Your task to perform on an android device: Go to internet settings Image 0: 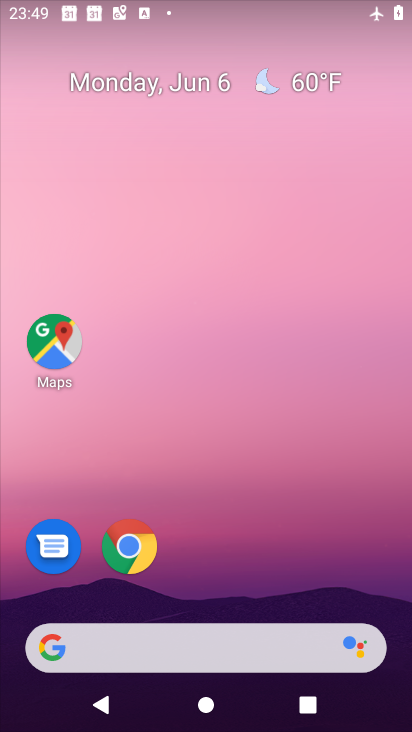
Step 0: drag from (393, 611) to (321, 100)
Your task to perform on an android device: Go to internet settings Image 1: 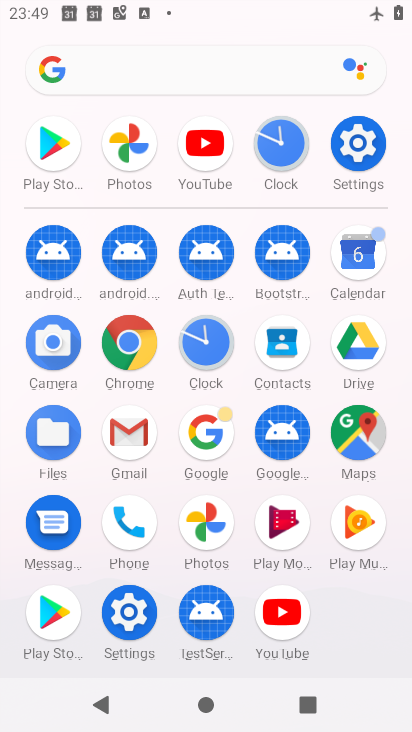
Step 1: click (129, 615)
Your task to perform on an android device: Go to internet settings Image 2: 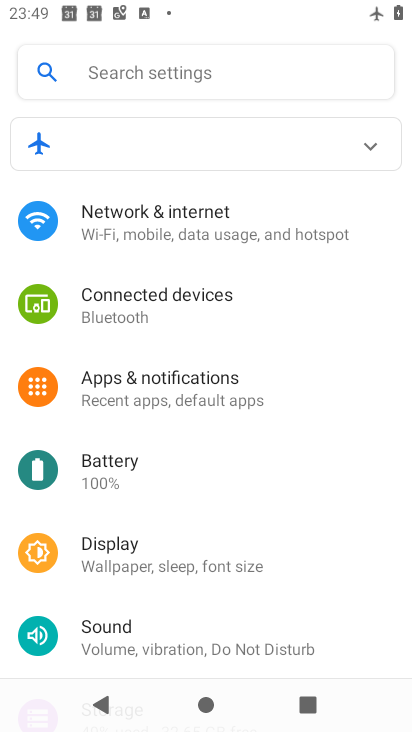
Step 2: click (143, 224)
Your task to perform on an android device: Go to internet settings Image 3: 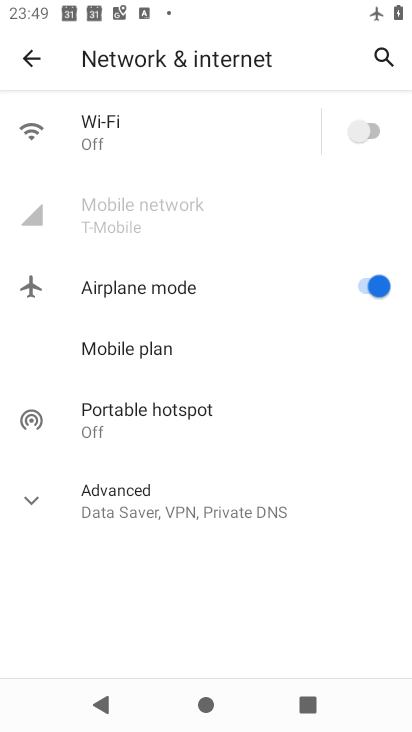
Step 3: click (90, 140)
Your task to perform on an android device: Go to internet settings Image 4: 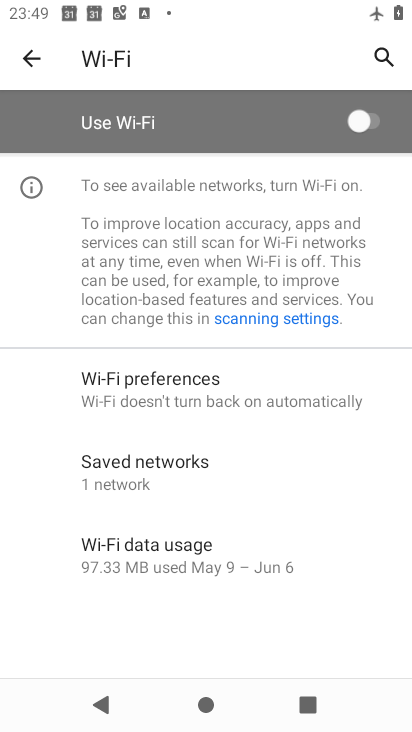
Step 4: task complete